Your task to perform on an android device: turn on bluetooth scan Image 0: 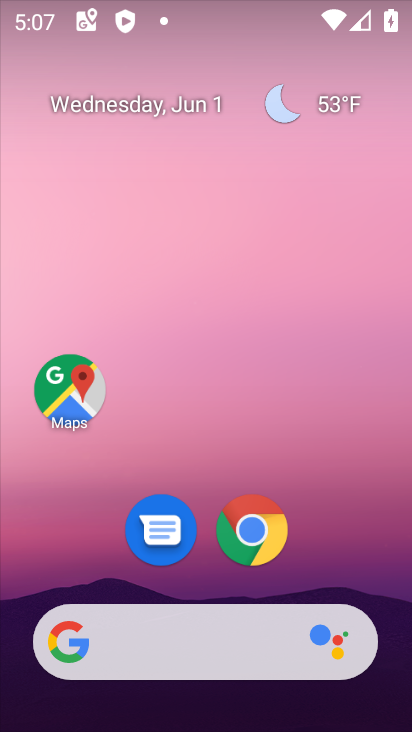
Step 0: drag from (302, 566) to (327, 7)
Your task to perform on an android device: turn on bluetooth scan Image 1: 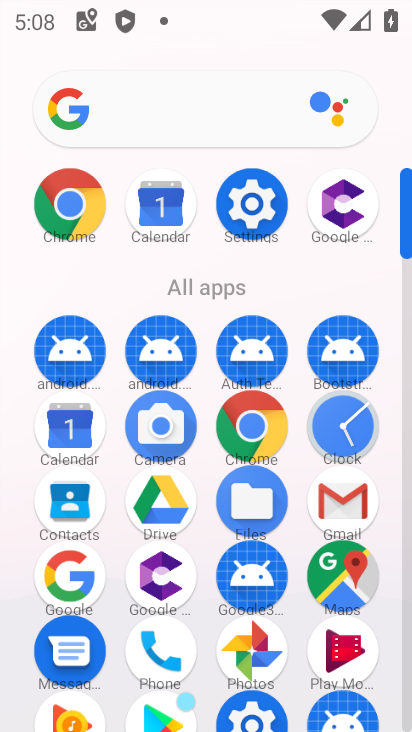
Step 1: click (245, 213)
Your task to perform on an android device: turn on bluetooth scan Image 2: 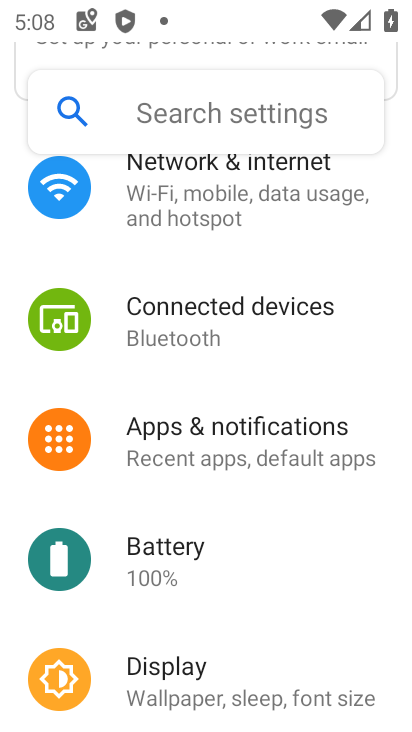
Step 2: drag from (246, 274) to (277, 591)
Your task to perform on an android device: turn on bluetooth scan Image 3: 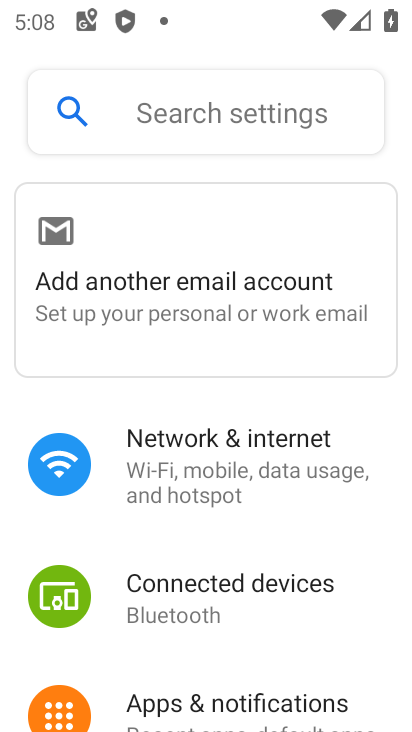
Step 3: drag from (274, 638) to (258, 264)
Your task to perform on an android device: turn on bluetooth scan Image 4: 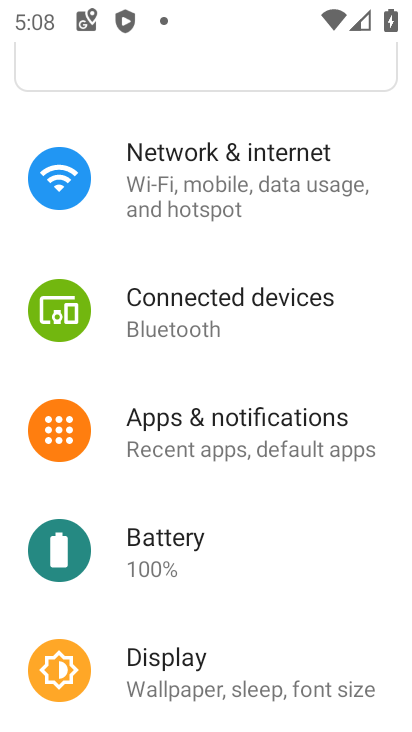
Step 4: drag from (206, 293) to (223, 494)
Your task to perform on an android device: turn on bluetooth scan Image 5: 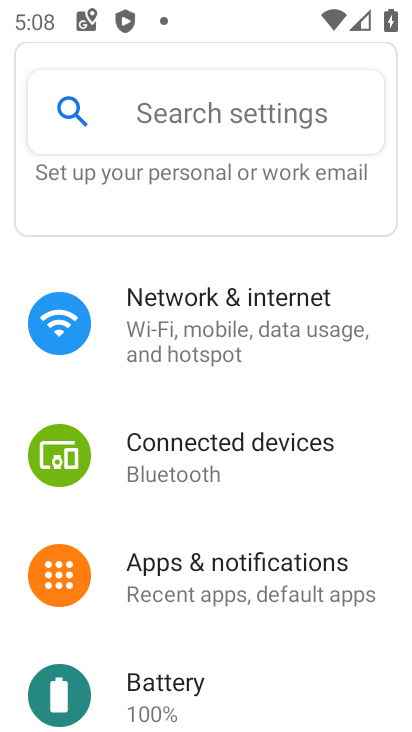
Step 5: drag from (231, 646) to (298, 278)
Your task to perform on an android device: turn on bluetooth scan Image 6: 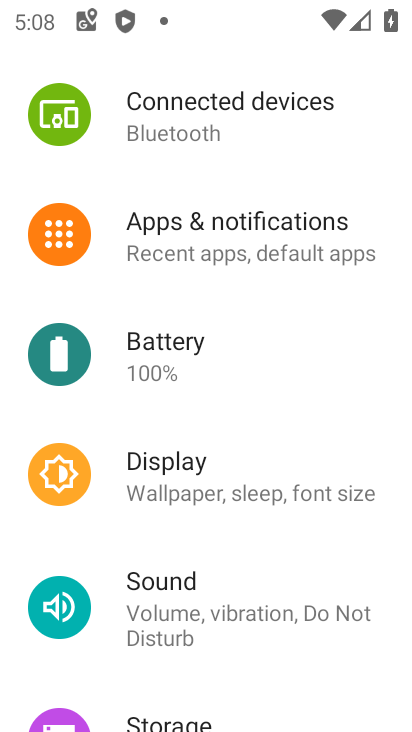
Step 6: drag from (196, 591) to (211, 352)
Your task to perform on an android device: turn on bluetooth scan Image 7: 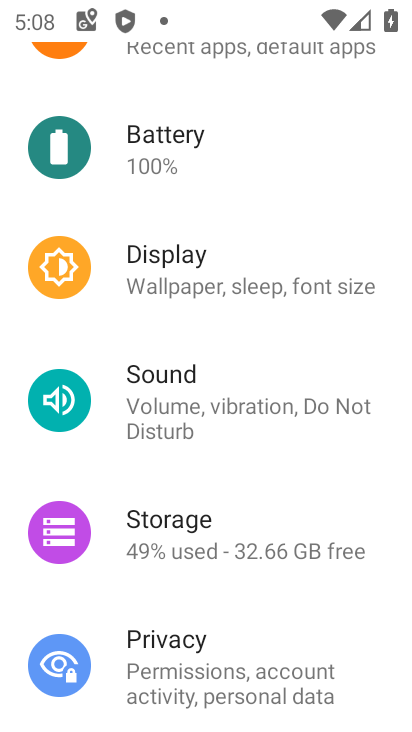
Step 7: drag from (219, 583) to (251, 300)
Your task to perform on an android device: turn on bluetooth scan Image 8: 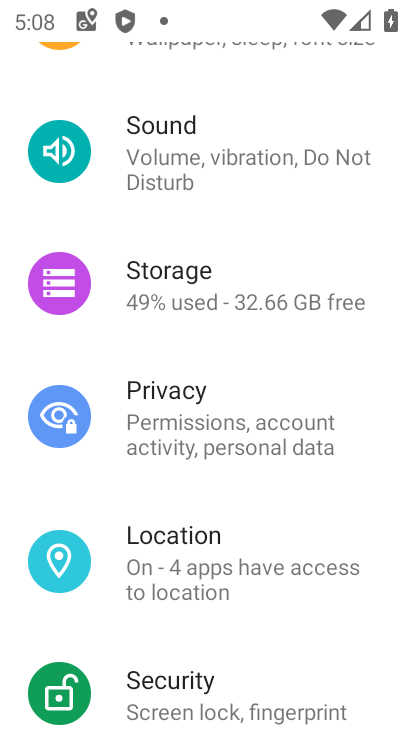
Step 8: click (210, 566)
Your task to perform on an android device: turn on bluetooth scan Image 9: 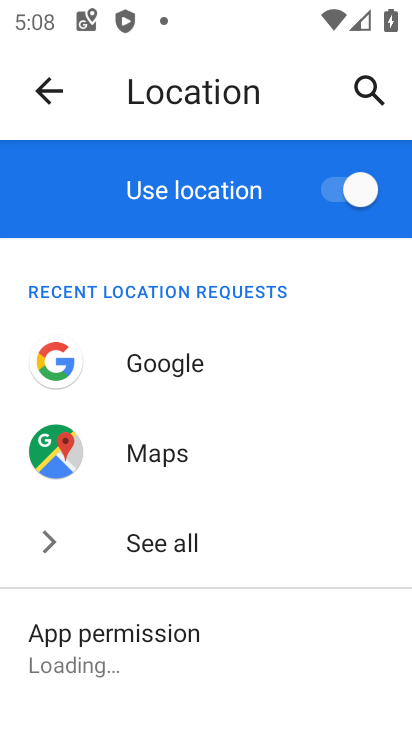
Step 9: drag from (200, 658) to (205, 441)
Your task to perform on an android device: turn on bluetooth scan Image 10: 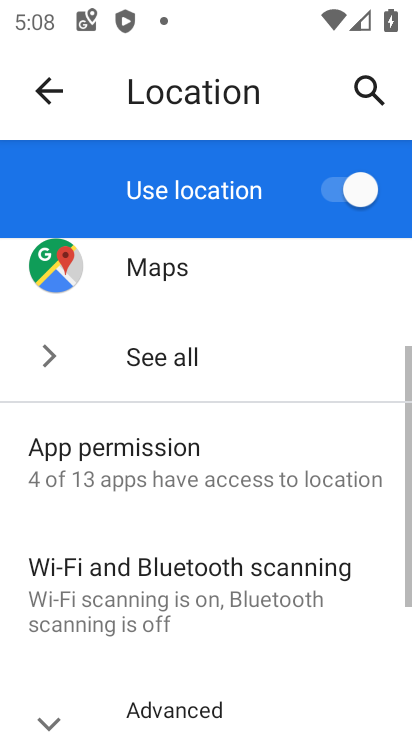
Step 10: drag from (196, 659) to (208, 395)
Your task to perform on an android device: turn on bluetooth scan Image 11: 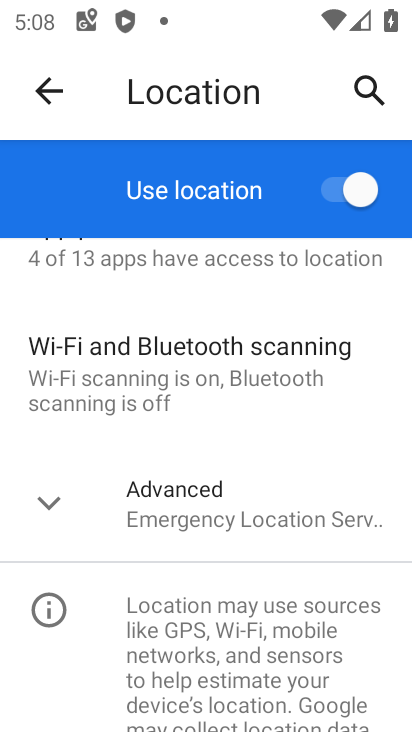
Step 11: click (145, 369)
Your task to perform on an android device: turn on bluetooth scan Image 12: 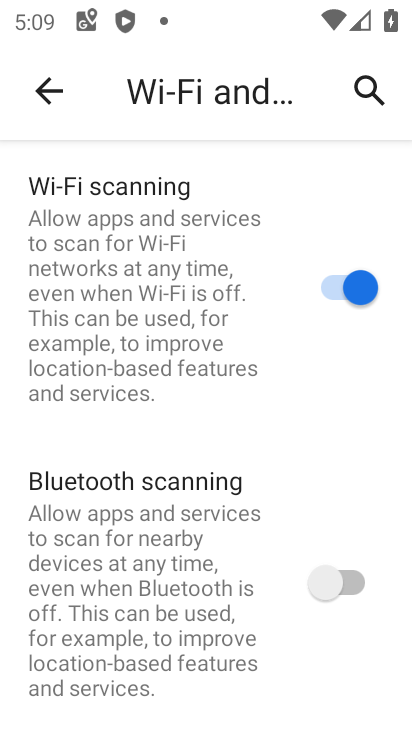
Step 12: click (357, 591)
Your task to perform on an android device: turn on bluetooth scan Image 13: 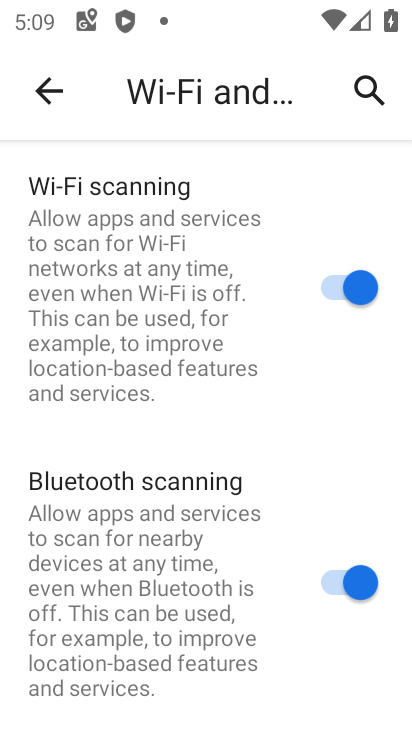
Step 13: task complete